Your task to perform on an android device: Find coffee shops on Maps Image 0: 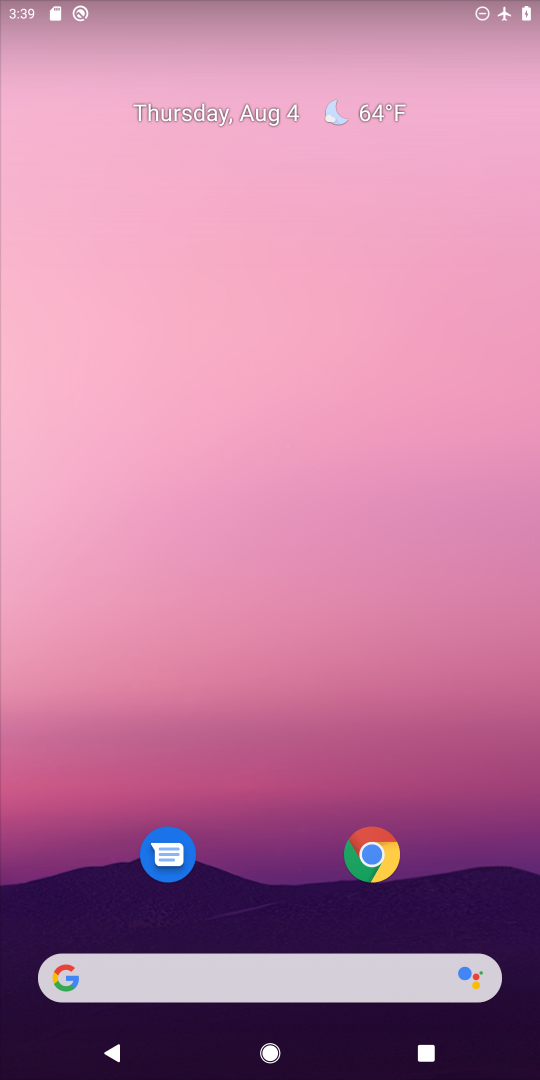
Step 0: click (356, 985)
Your task to perform on an android device: Find coffee shops on Maps Image 1: 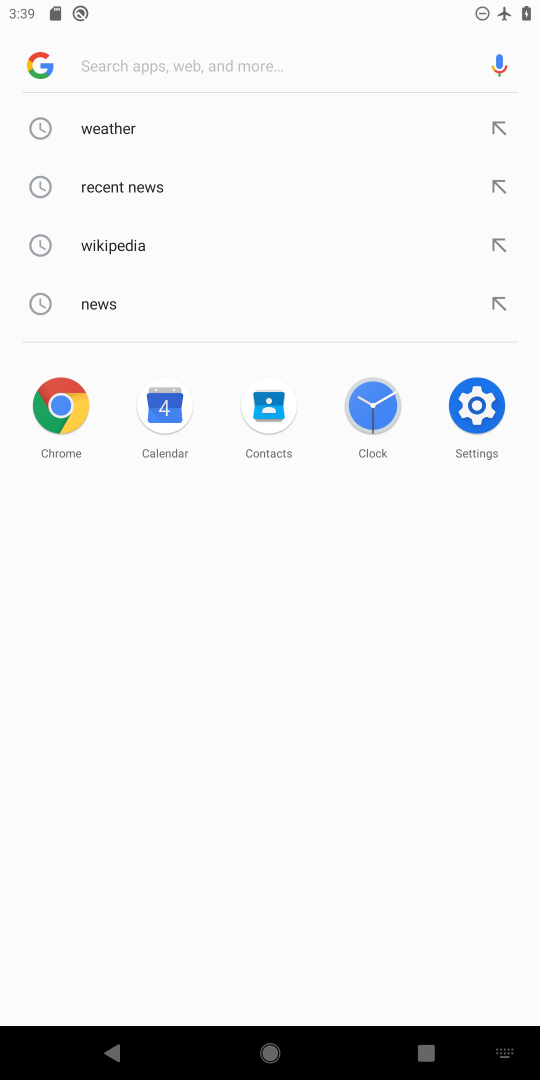
Step 1: type " coffee shops"
Your task to perform on an android device: Find coffee shops on Maps Image 2: 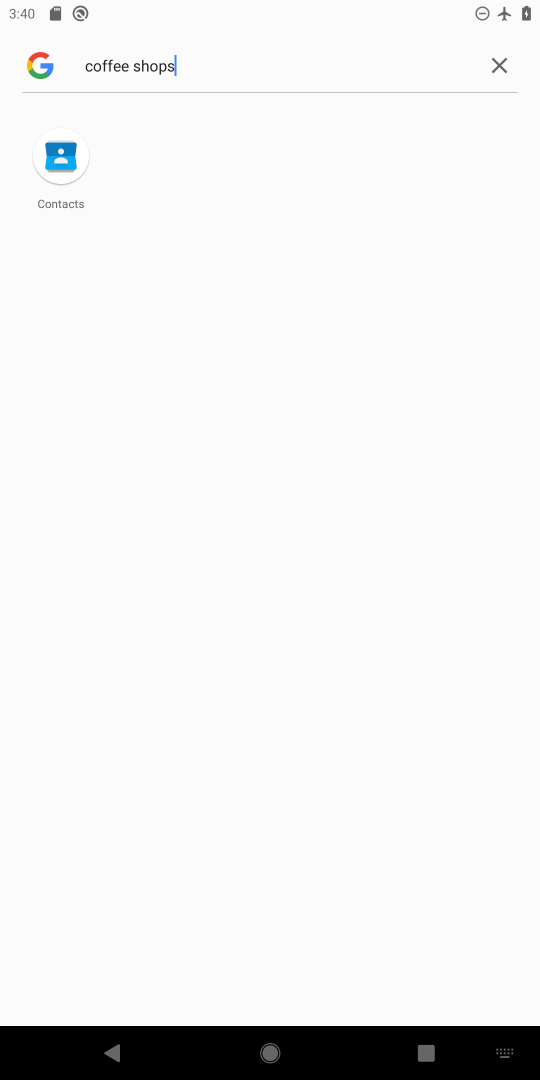
Step 2: press enter
Your task to perform on an android device: Find coffee shops on Maps Image 3: 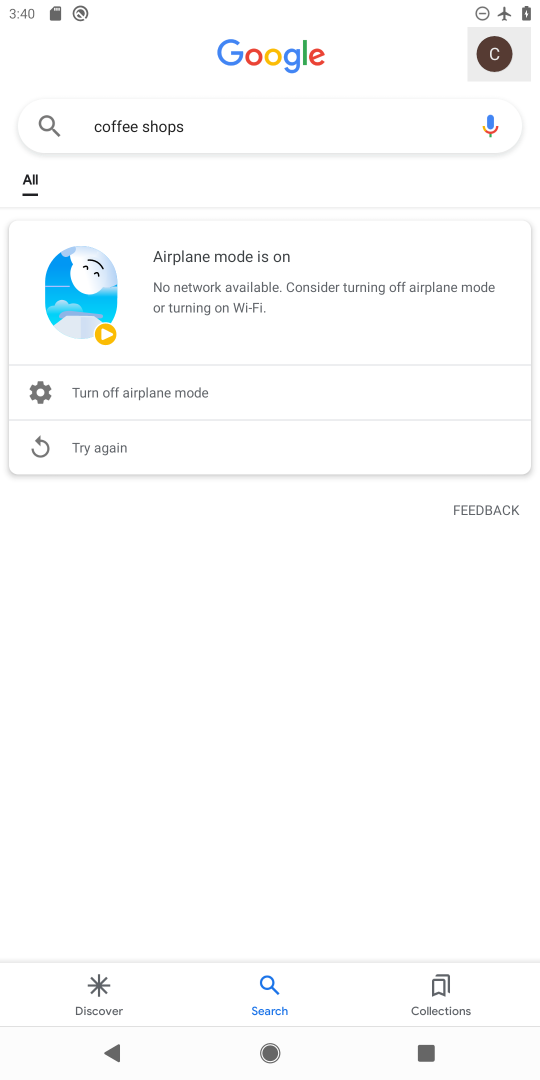
Step 3: task complete